Your task to perform on an android device: Go to Yahoo.com Image 0: 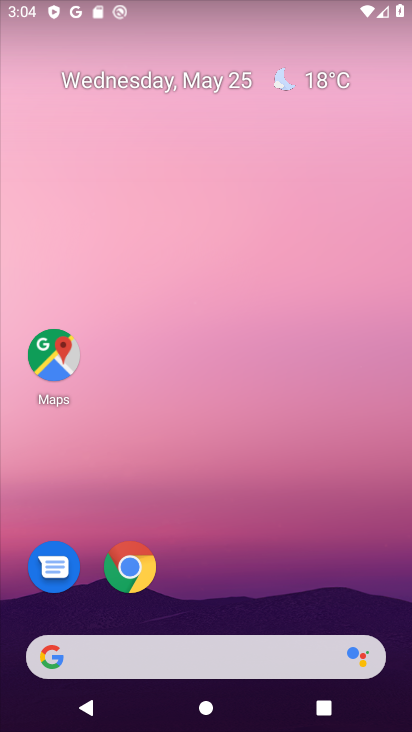
Step 0: drag from (372, 576) to (334, 177)
Your task to perform on an android device: Go to Yahoo.com Image 1: 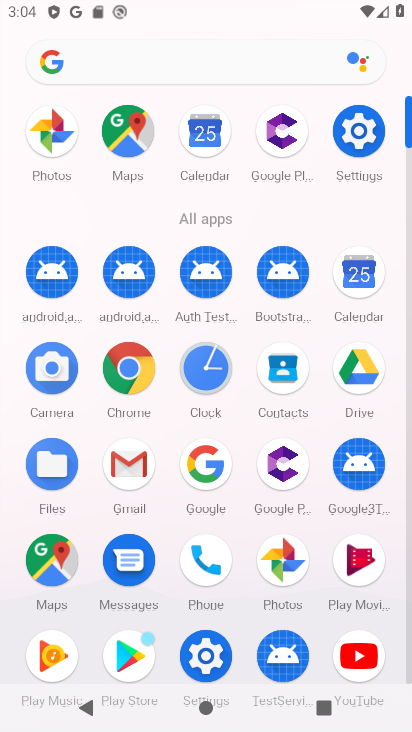
Step 1: click (134, 380)
Your task to perform on an android device: Go to Yahoo.com Image 2: 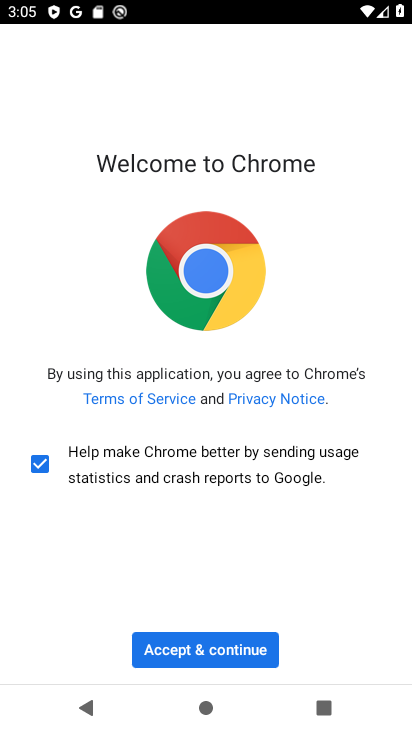
Step 2: click (215, 649)
Your task to perform on an android device: Go to Yahoo.com Image 3: 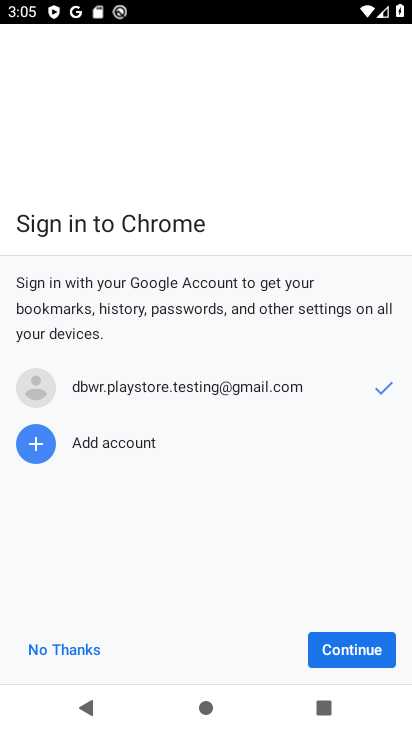
Step 3: click (343, 661)
Your task to perform on an android device: Go to Yahoo.com Image 4: 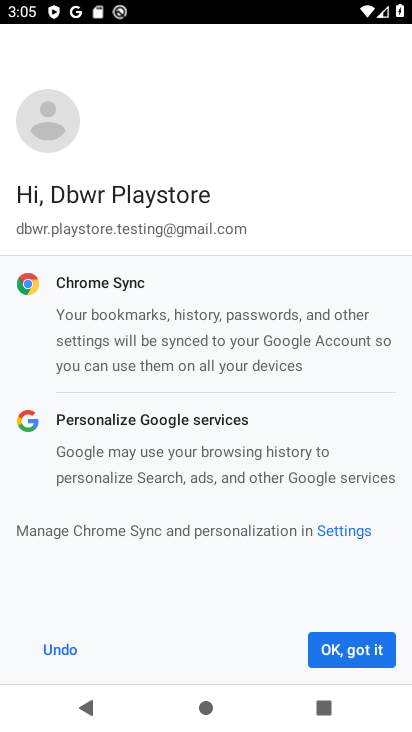
Step 4: click (344, 661)
Your task to perform on an android device: Go to Yahoo.com Image 5: 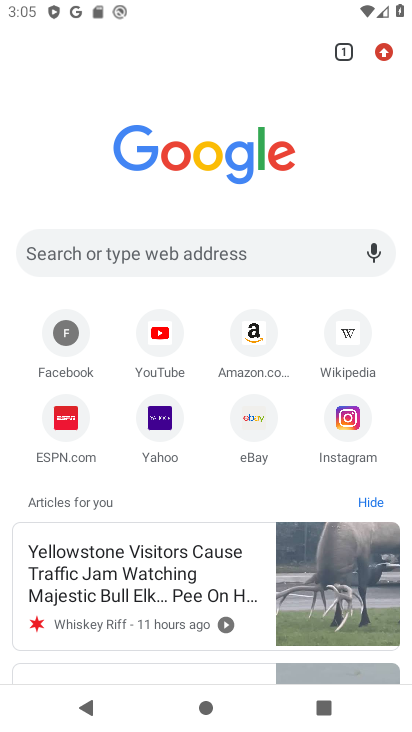
Step 5: click (155, 422)
Your task to perform on an android device: Go to Yahoo.com Image 6: 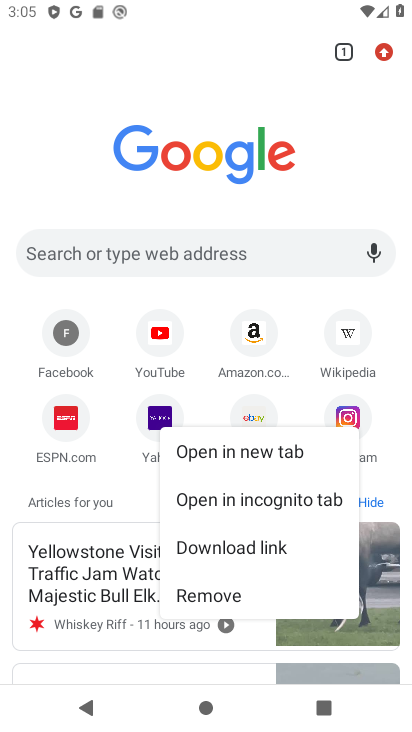
Step 6: click (155, 422)
Your task to perform on an android device: Go to Yahoo.com Image 7: 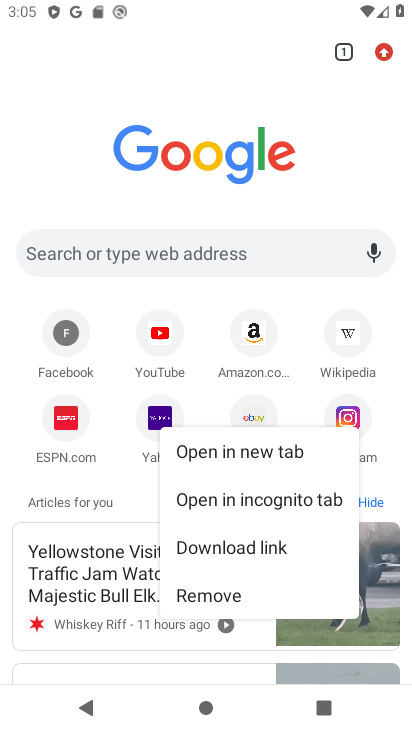
Step 7: click (142, 442)
Your task to perform on an android device: Go to Yahoo.com Image 8: 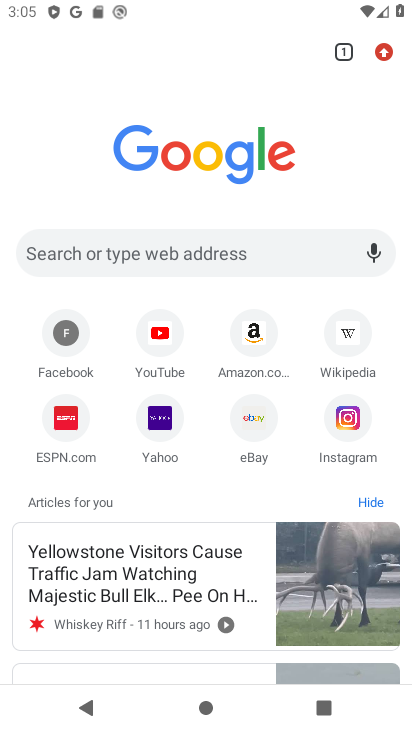
Step 8: click (165, 421)
Your task to perform on an android device: Go to Yahoo.com Image 9: 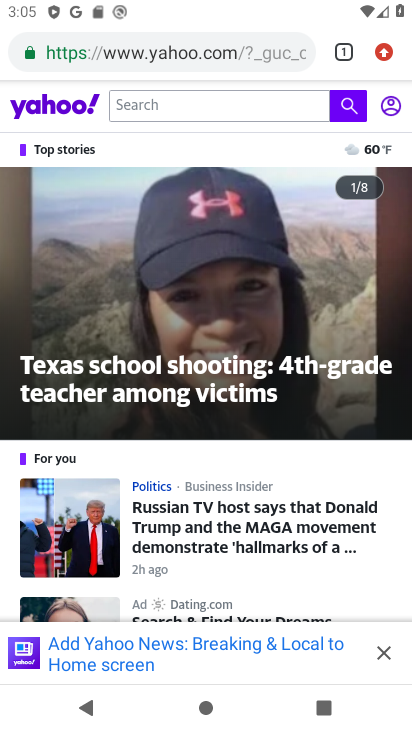
Step 9: task complete